Your task to perform on an android device: toggle wifi Image 0: 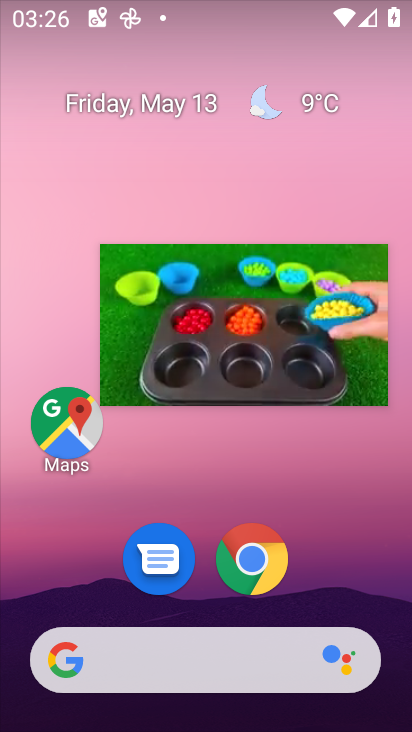
Step 0: drag from (383, 586) to (346, 262)
Your task to perform on an android device: toggle wifi Image 1: 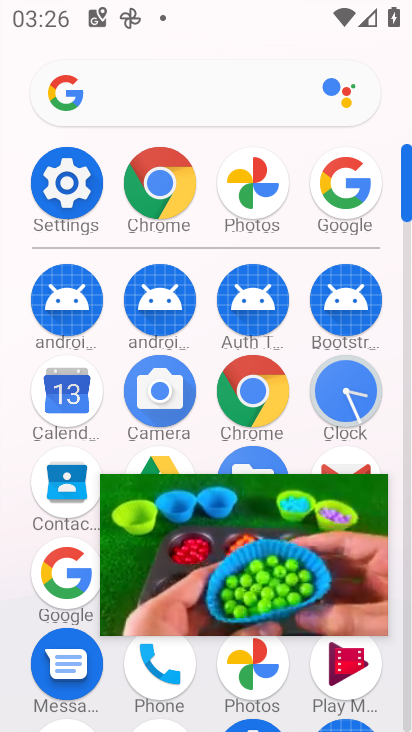
Step 1: click (54, 176)
Your task to perform on an android device: toggle wifi Image 2: 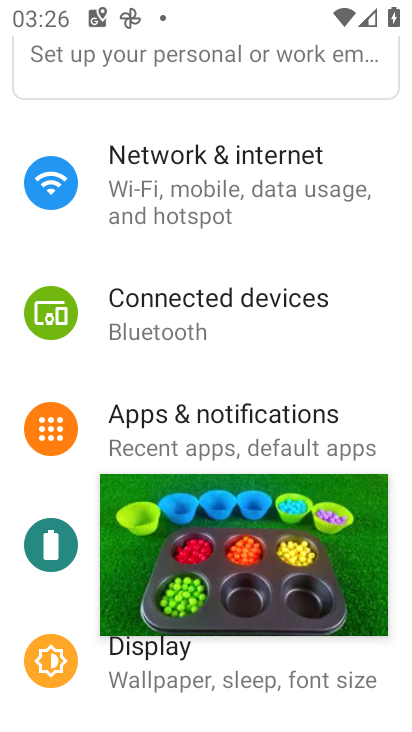
Step 2: click (185, 168)
Your task to perform on an android device: toggle wifi Image 3: 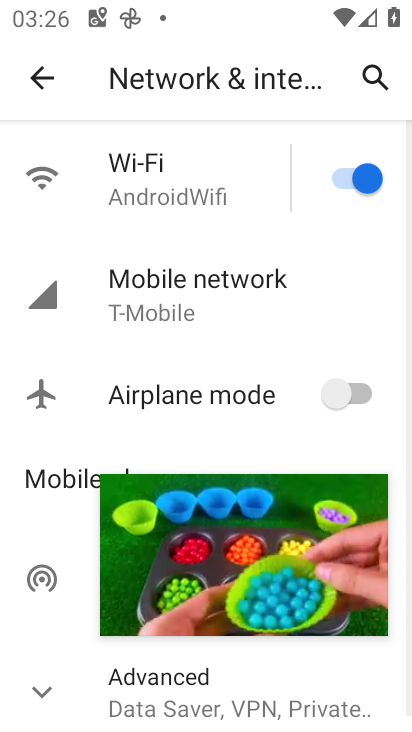
Step 3: click (339, 176)
Your task to perform on an android device: toggle wifi Image 4: 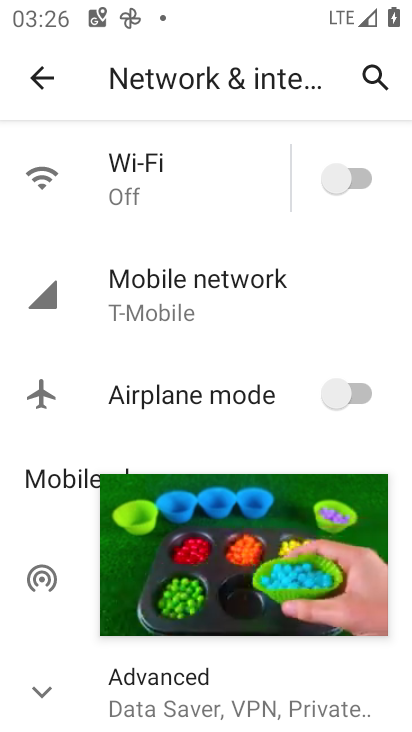
Step 4: task complete